Your task to perform on an android device: turn on priority inbox in the gmail app Image 0: 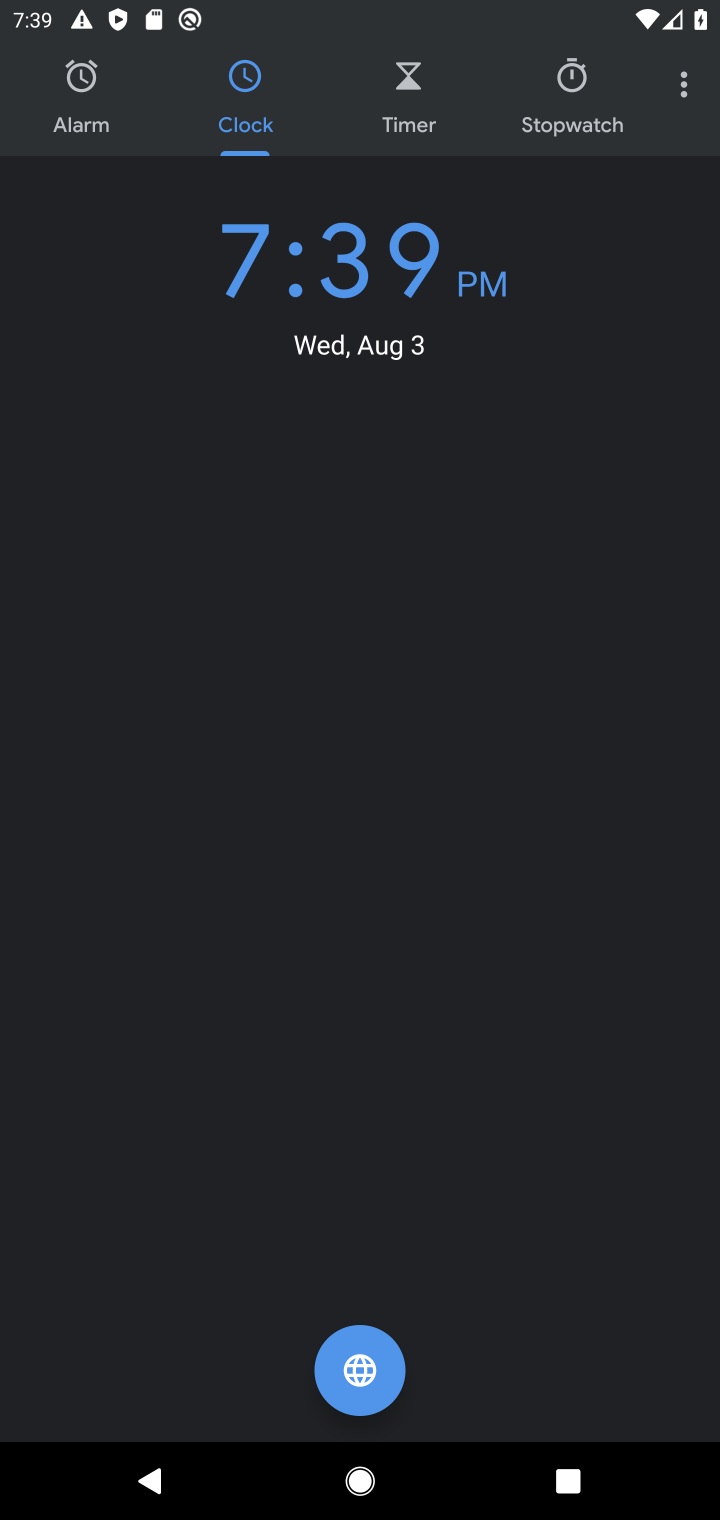
Step 0: press home button
Your task to perform on an android device: turn on priority inbox in the gmail app Image 1: 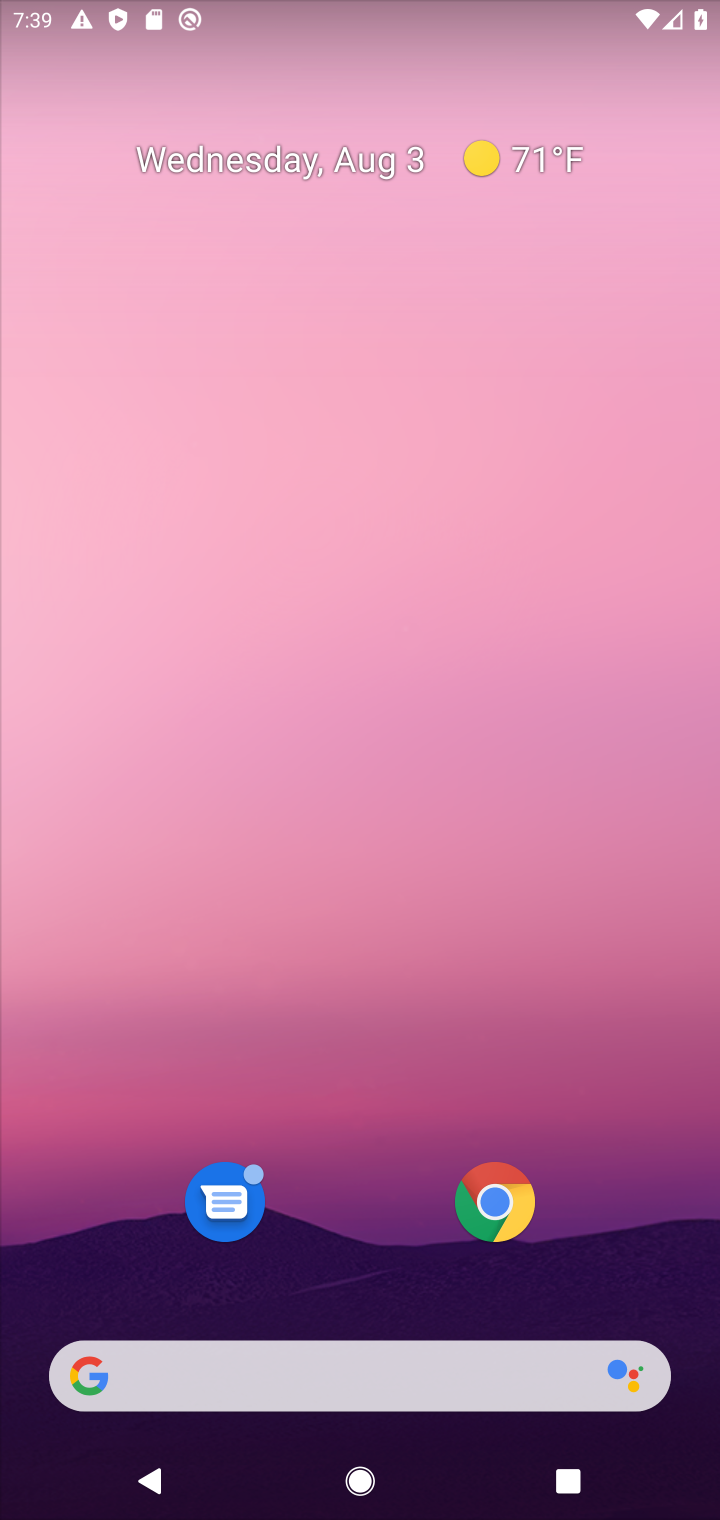
Step 1: drag from (287, 1372) to (303, 271)
Your task to perform on an android device: turn on priority inbox in the gmail app Image 2: 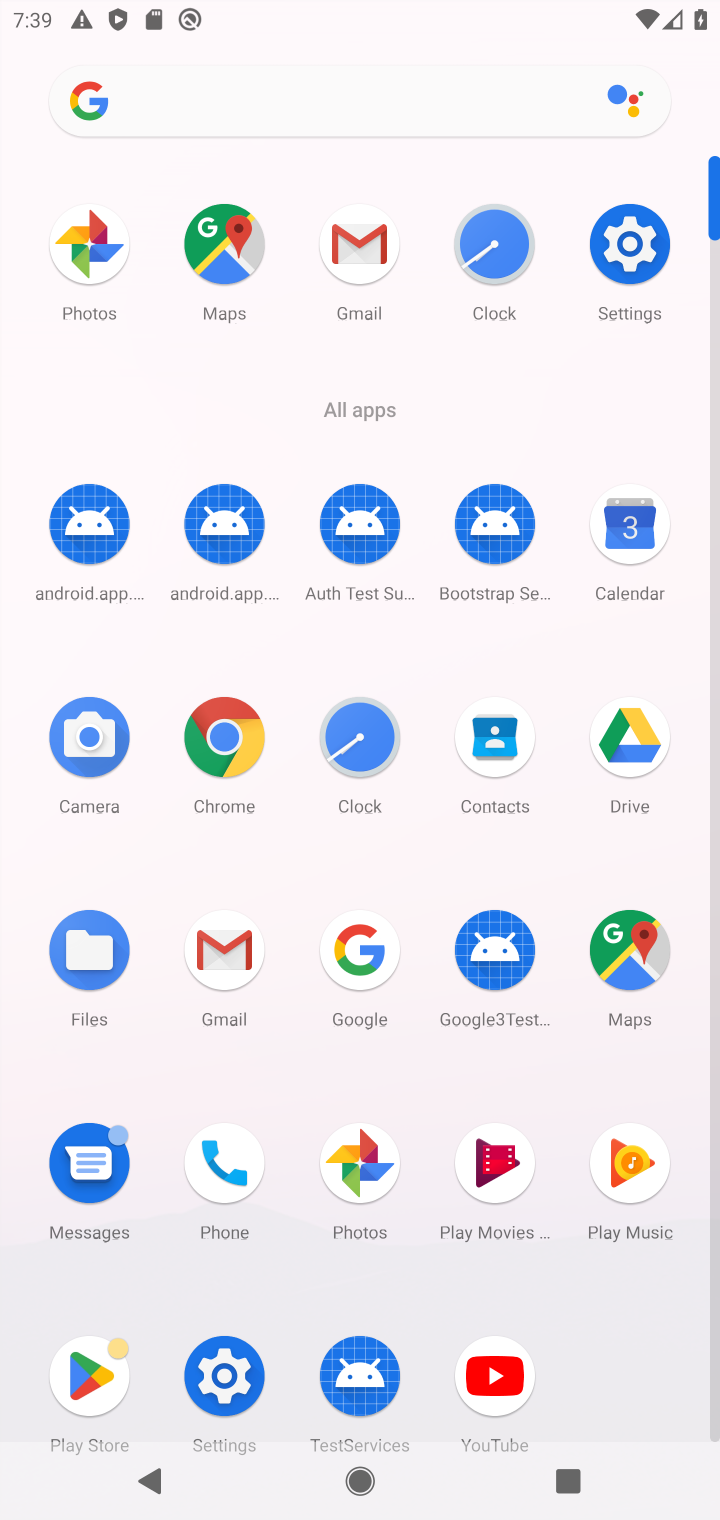
Step 2: click (363, 235)
Your task to perform on an android device: turn on priority inbox in the gmail app Image 3: 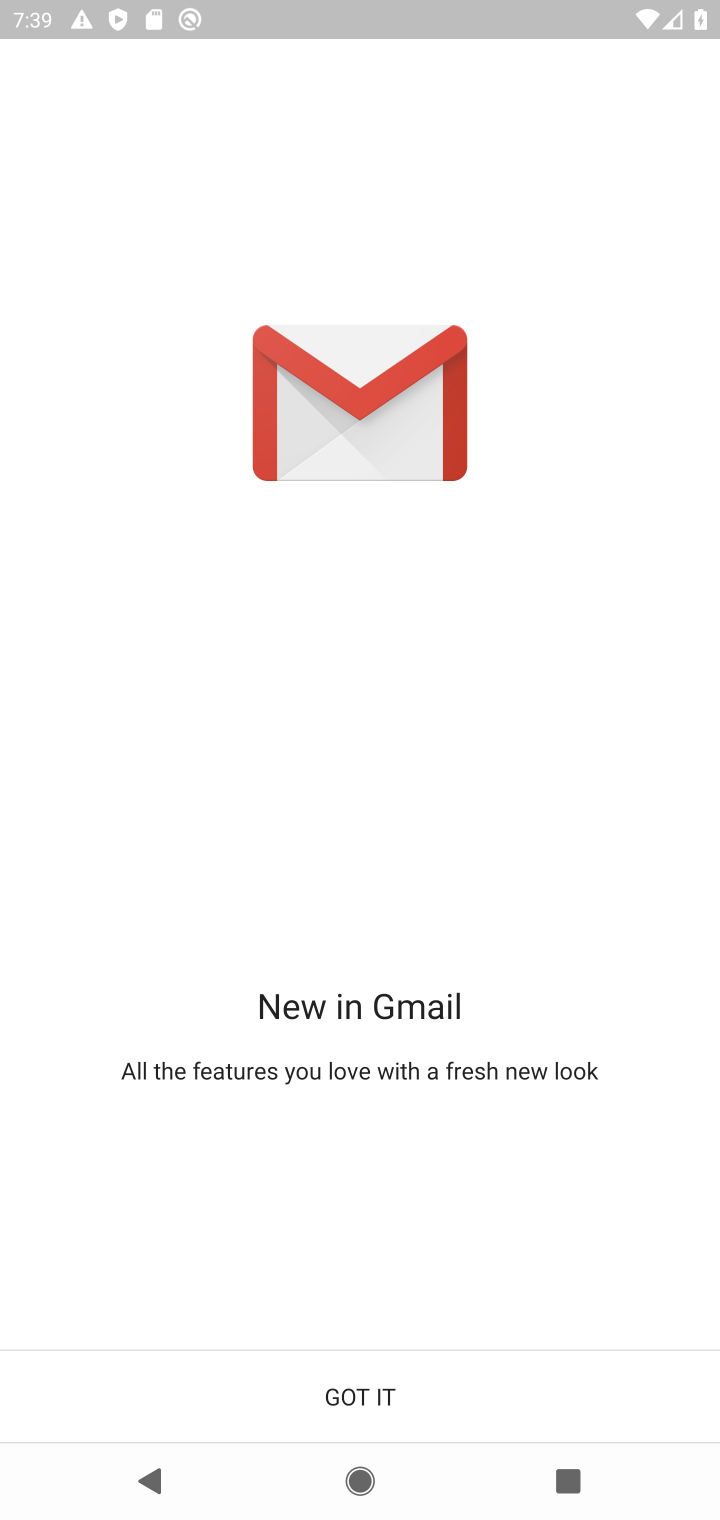
Step 3: click (364, 1383)
Your task to perform on an android device: turn on priority inbox in the gmail app Image 4: 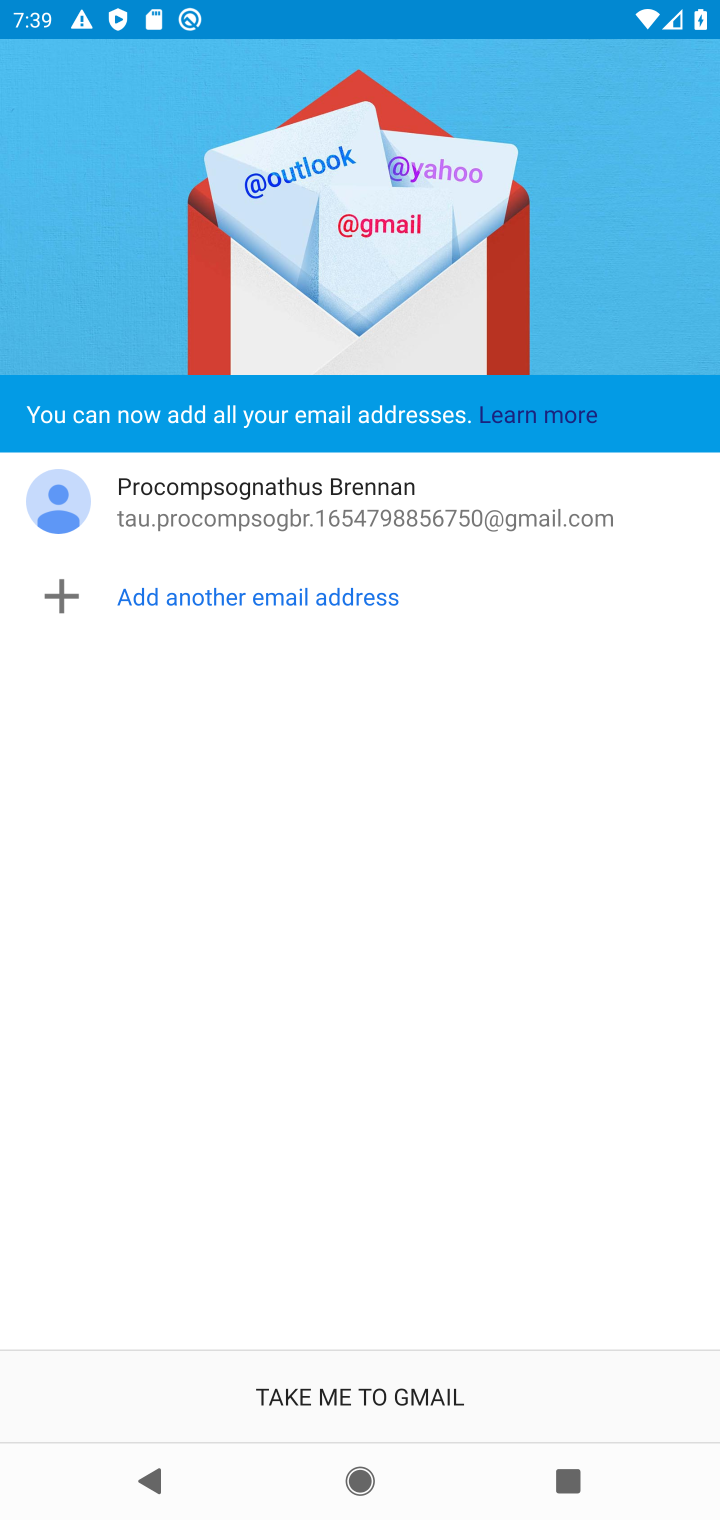
Step 4: click (370, 1405)
Your task to perform on an android device: turn on priority inbox in the gmail app Image 5: 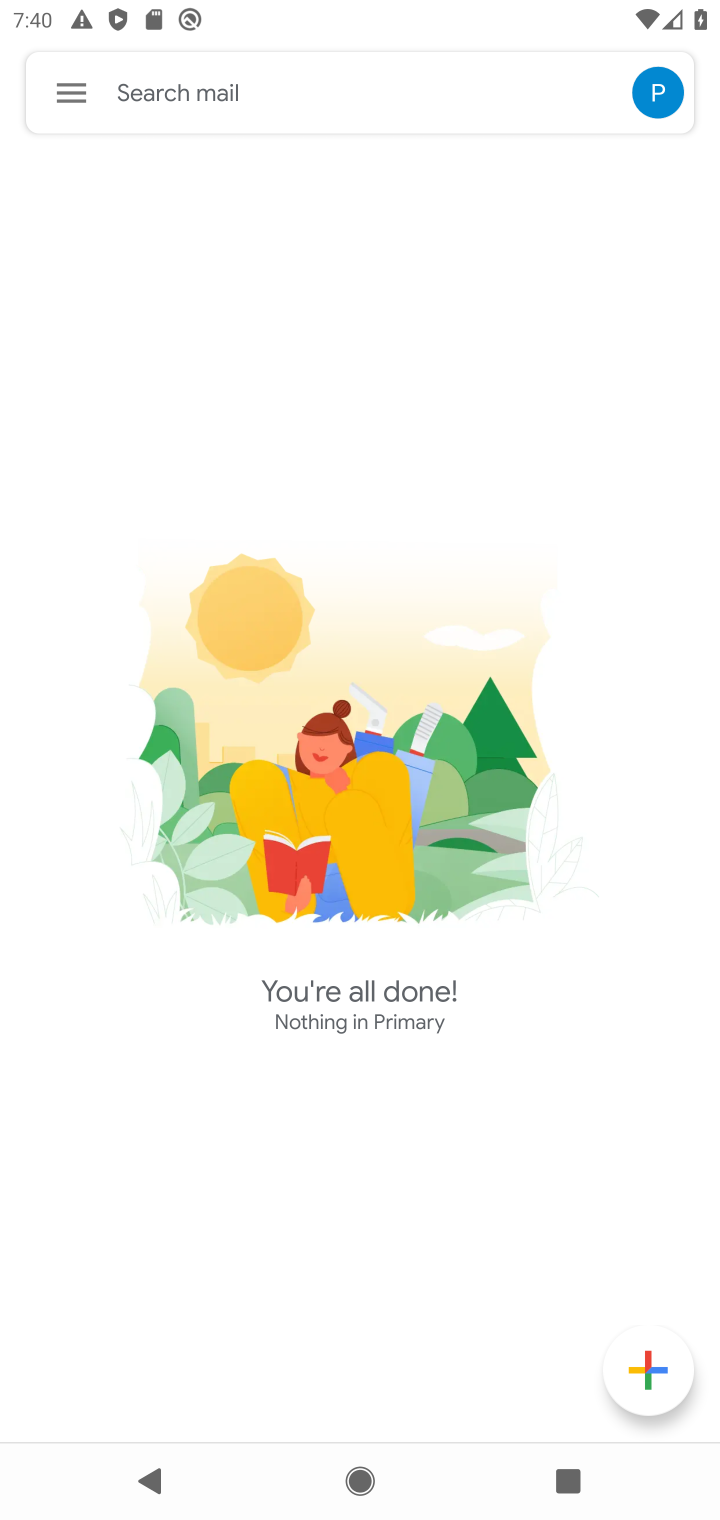
Step 5: click (77, 98)
Your task to perform on an android device: turn on priority inbox in the gmail app Image 6: 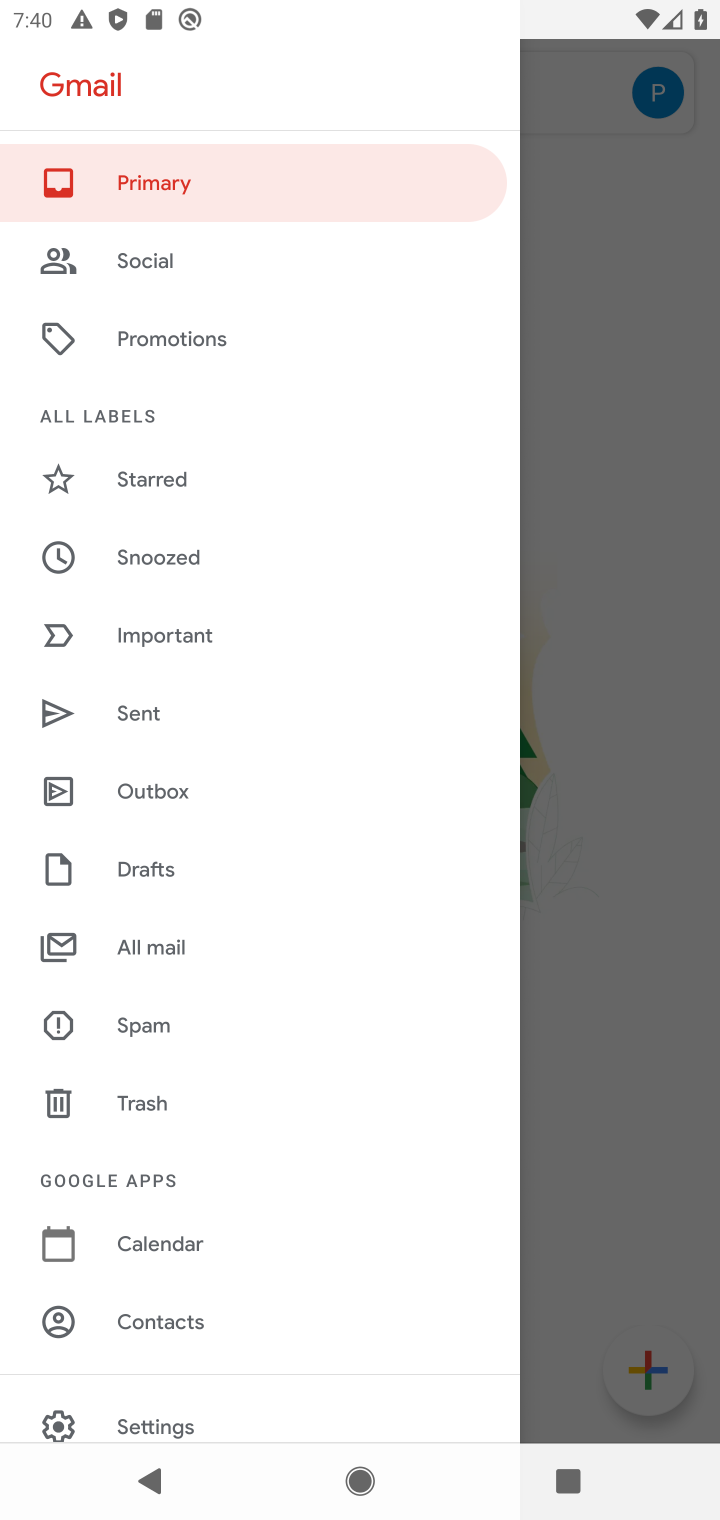
Step 6: drag from (172, 1283) to (97, 889)
Your task to perform on an android device: turn on priority inbox in the gmail app Image 7: 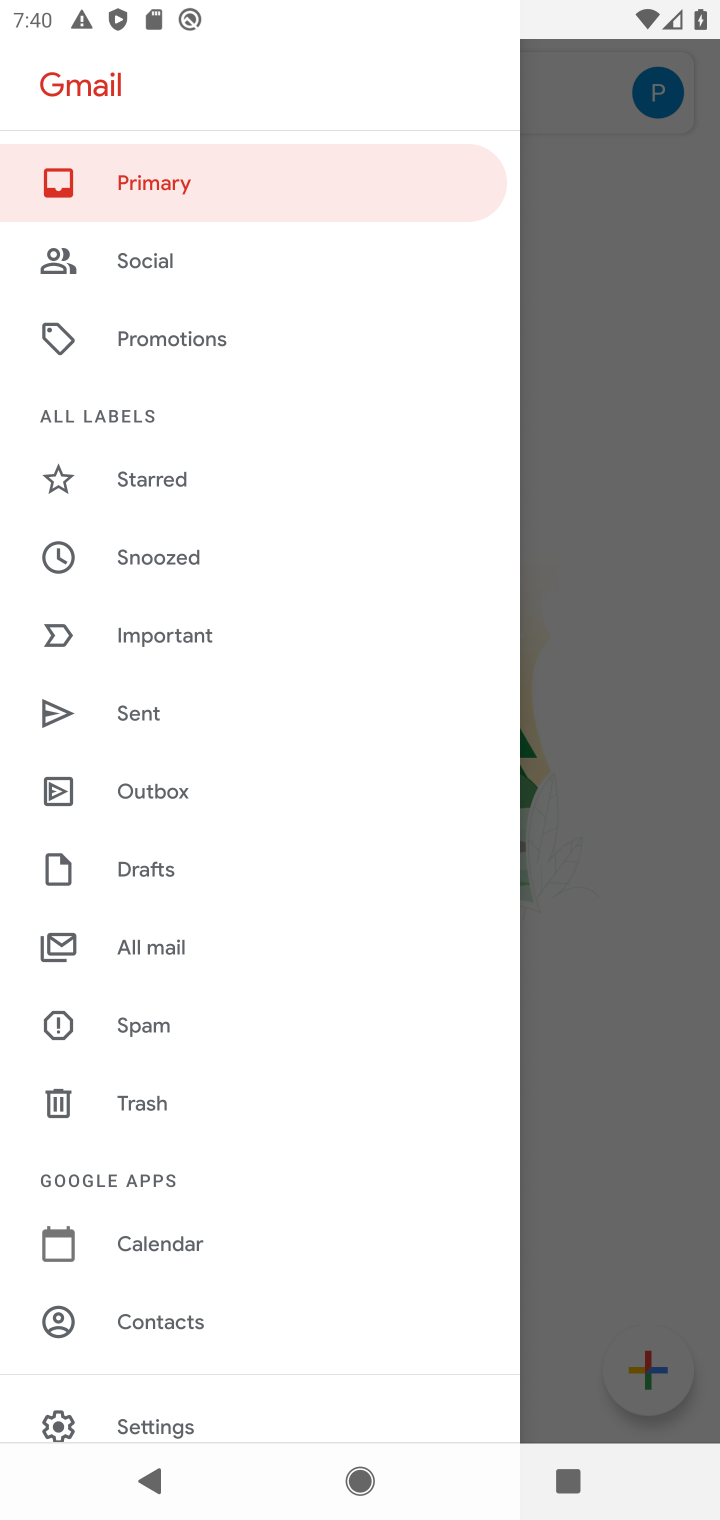
Step 7: drag from (88, 1289) to (196, 815)
Your task to perform on an android device: turn on priority inbox in the gmail app Image 8: 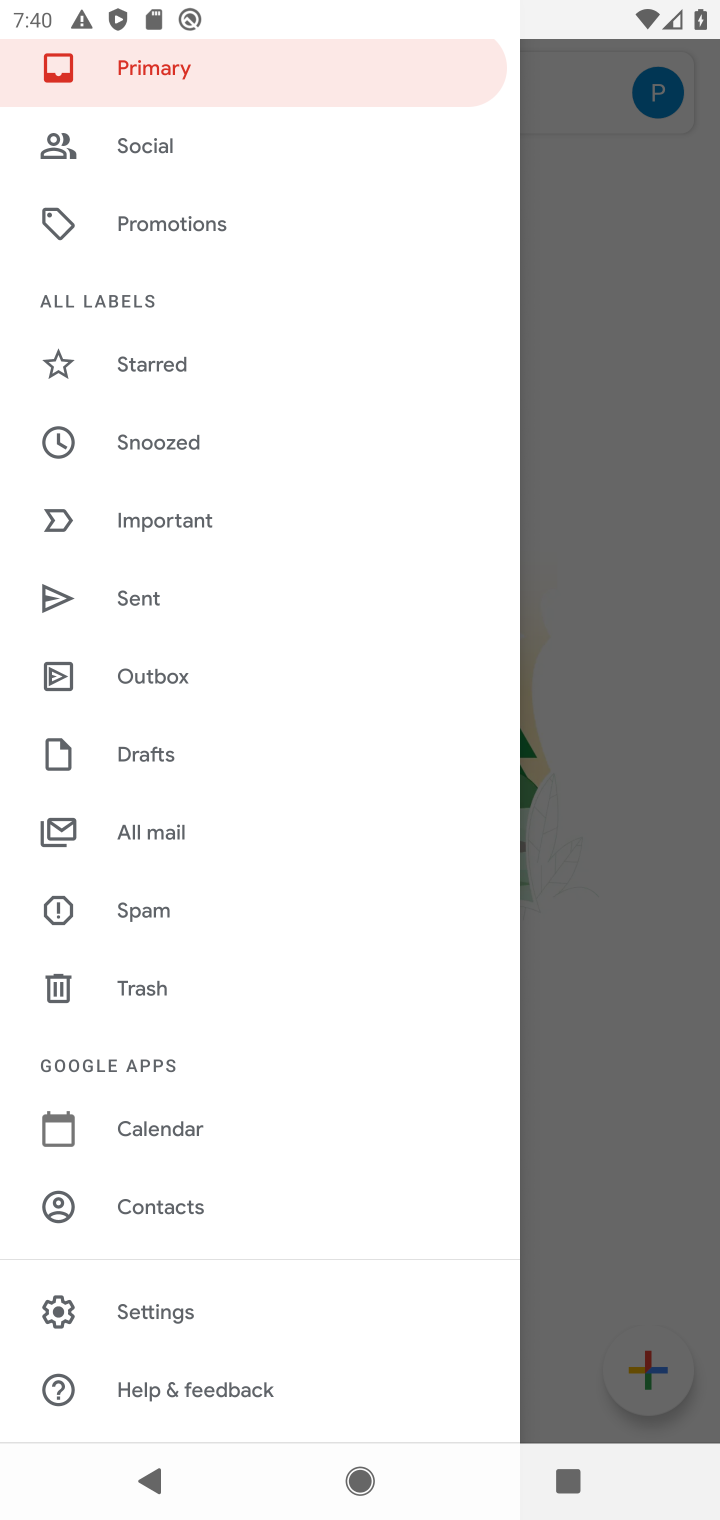
Step 8: click (174, 1311)
Your task to perform on an android device: turn on priority inbox in the gmail app Image 9: 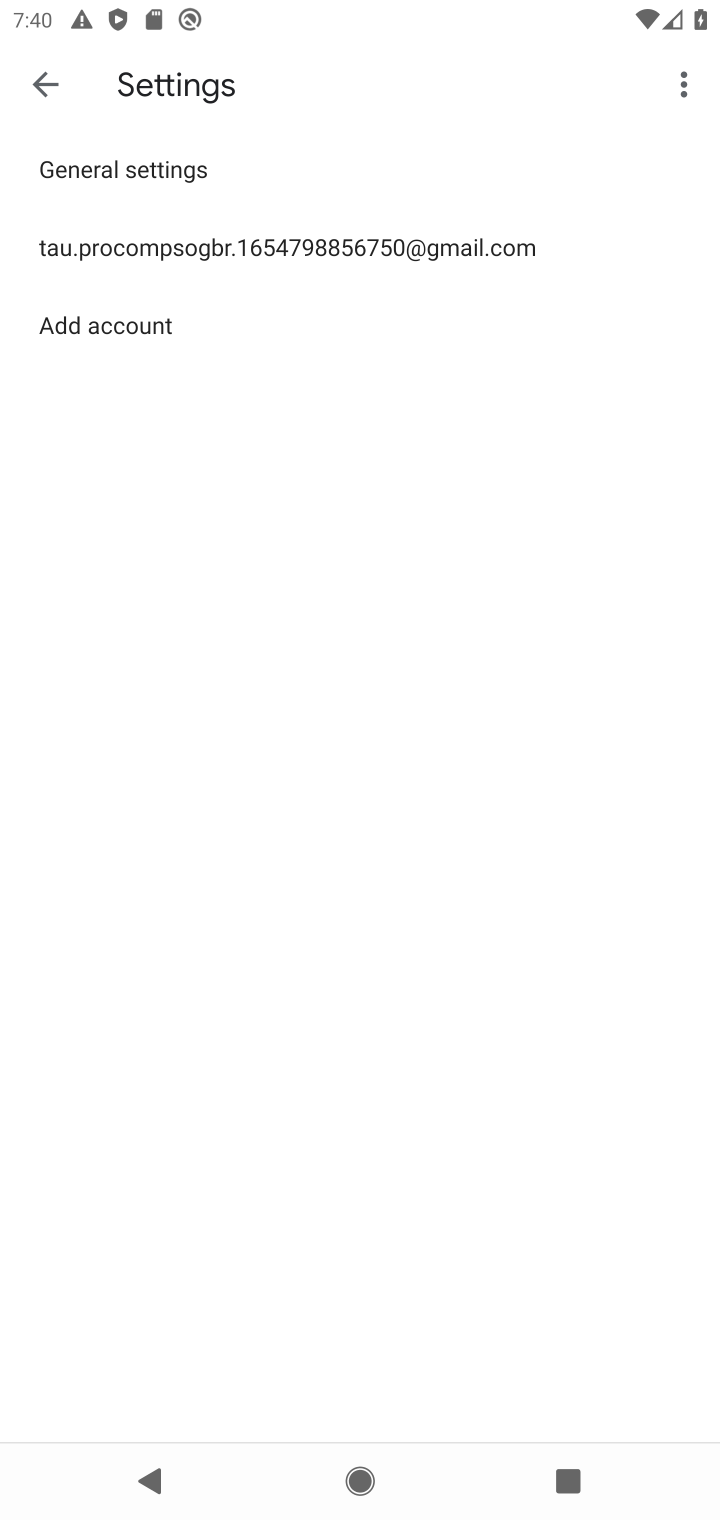
Step 9: click (198, 241)
Your task to perform on an android device: turn on priority inbox in the gmail app Image 10: 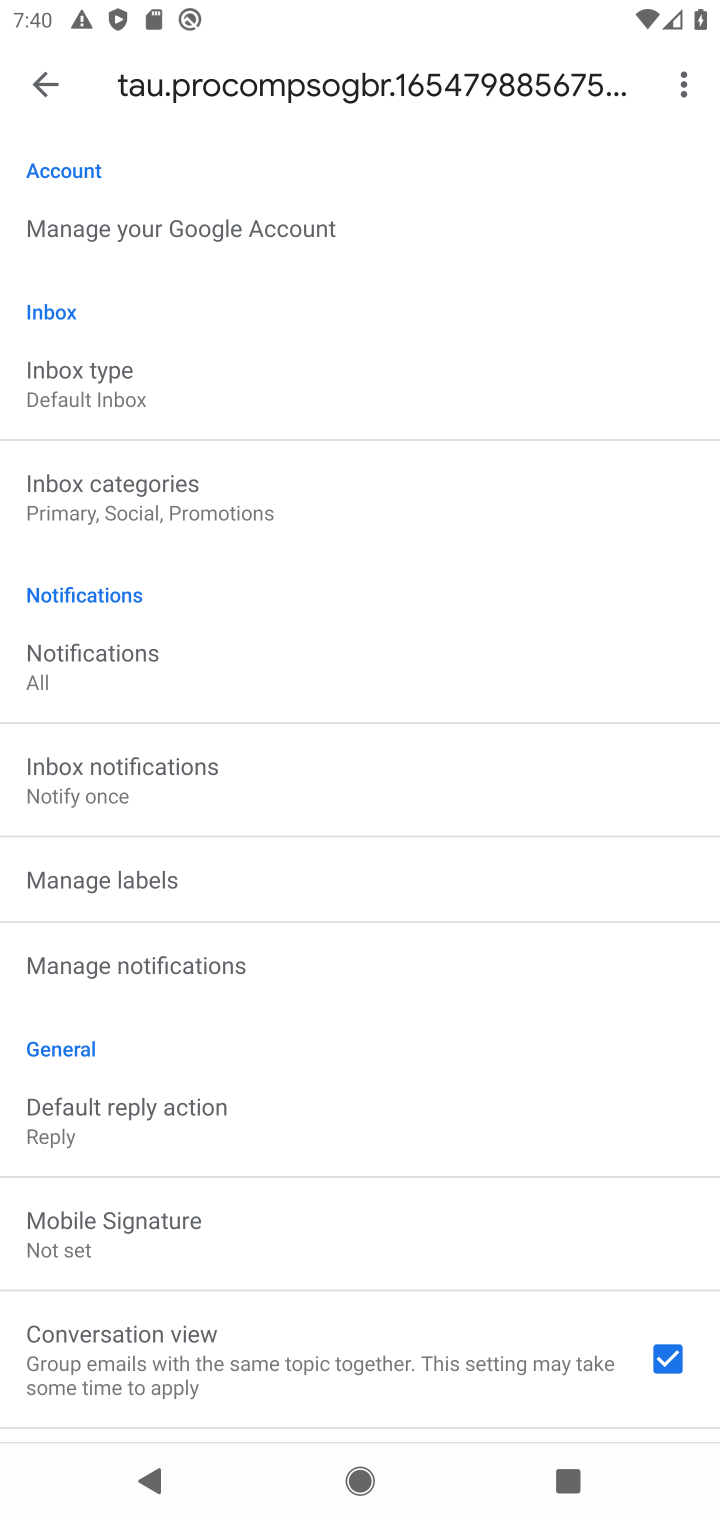
Step 10: click (110, 380)
Your task to perform on an android device: turn on priority inbox in the gmail app Image 11: 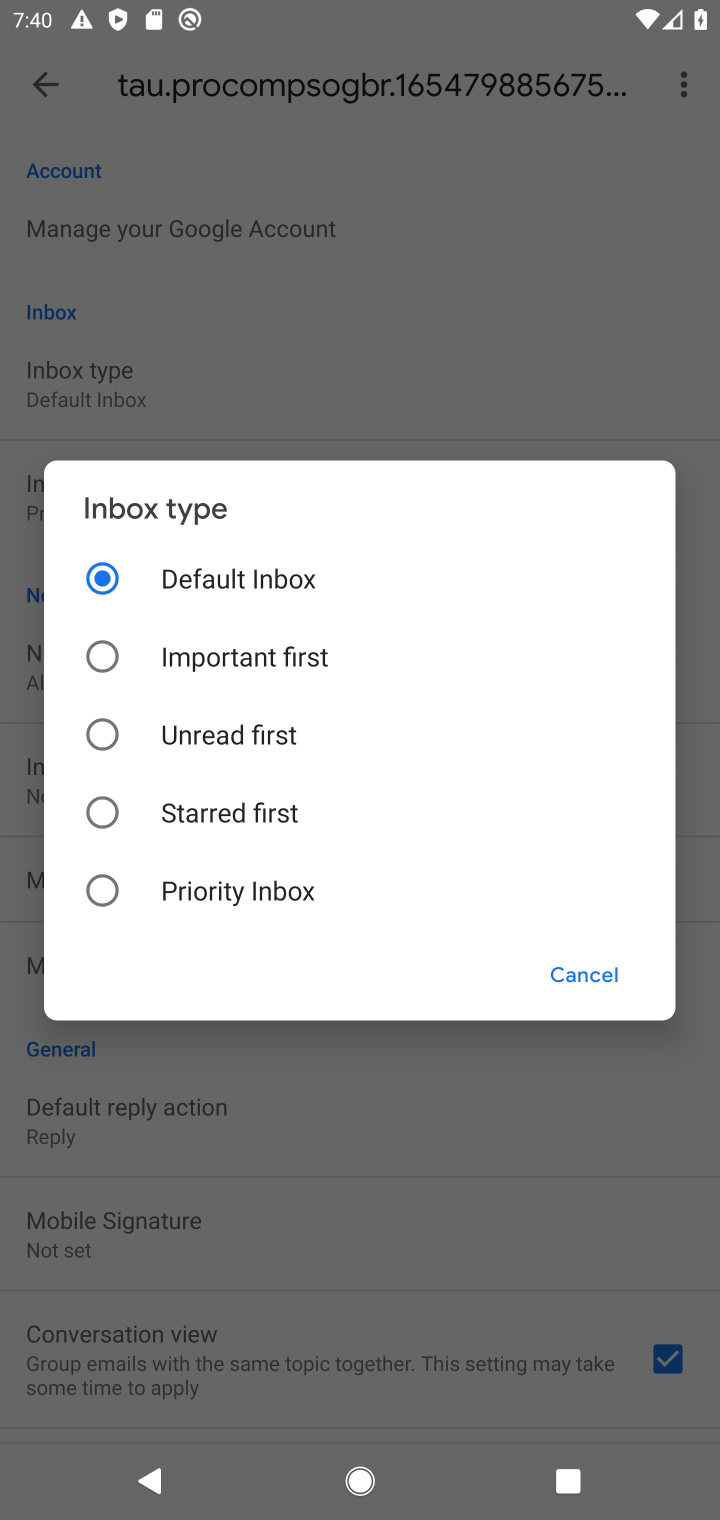
Step 11: click (105, 887)
Your task to perform on an android device: turn on priority inbox in the gmail app Image 12: 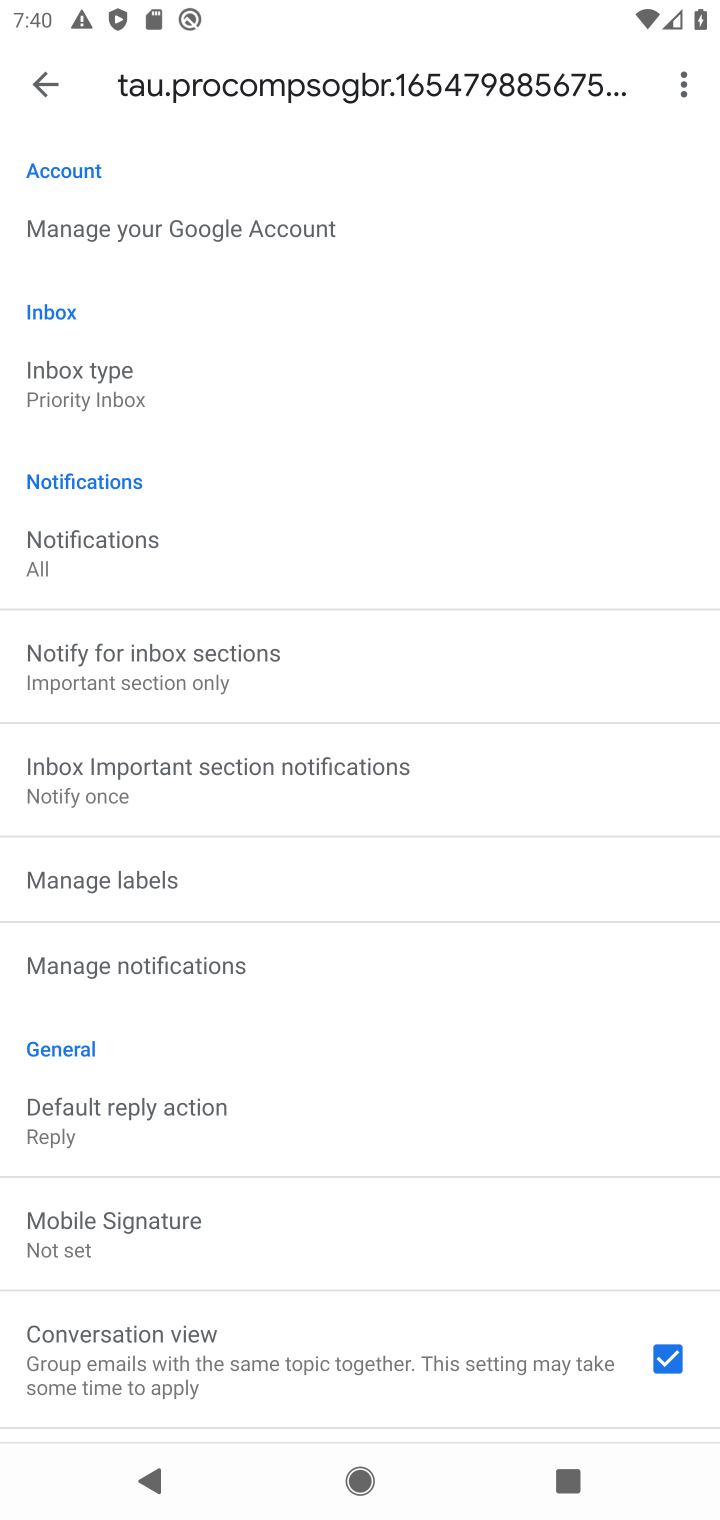
Step 12: task complete